Your task to perform on an android device: toggle javascript in the chrome app Image 0: 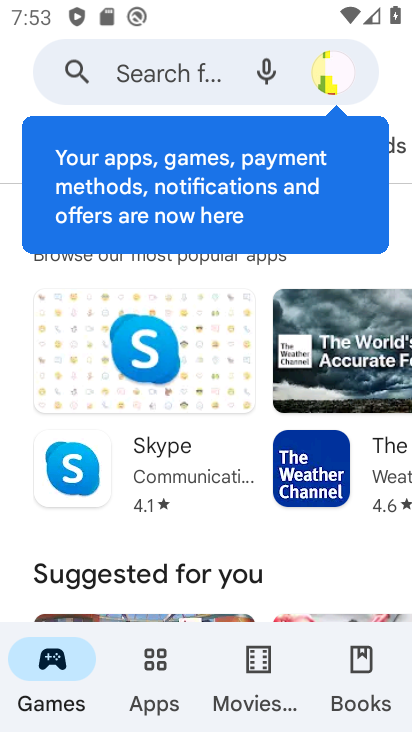
Step 0: press home button
Your task to perform on an android device: toggle javascript in the chrome app Image 1: 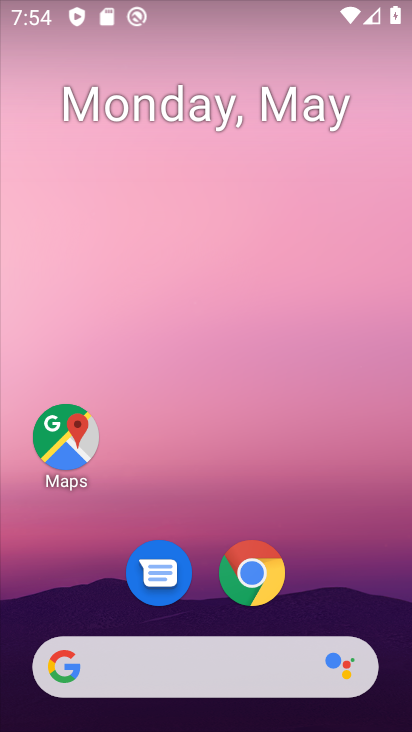
Step 1: drag from (63, 625) to (196, 137)
Your task to perform on an android device: toggle javascript in the chrome app Image 2: 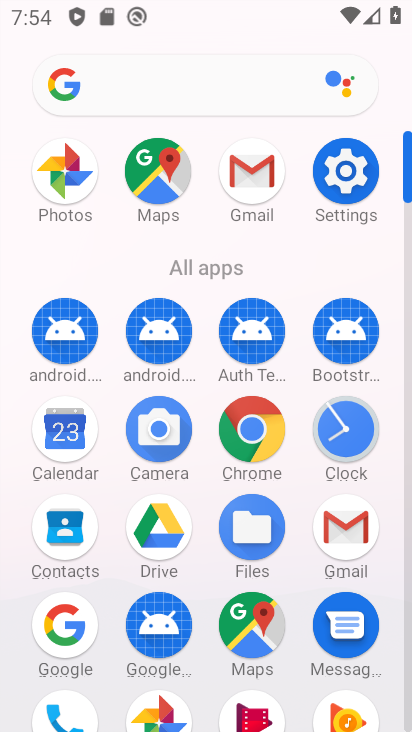
Step 2: drag from (198, 660) to (252, 265)
Your task to perform on an android device: toggle javascript in the chrome app Image 3: 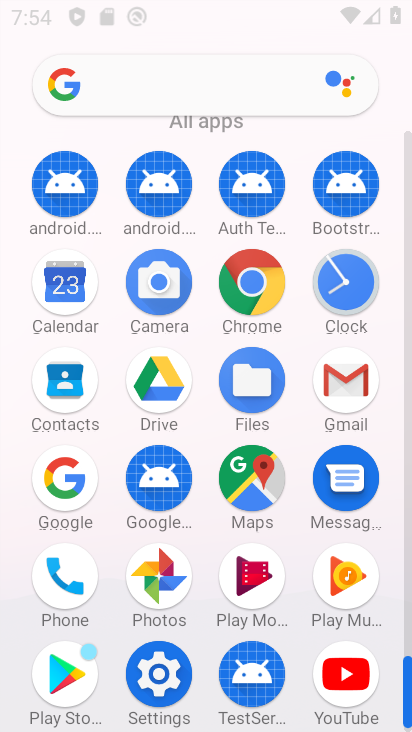
Step 3: click (262, 296)
Your task to perform on an android device: toggle javascript in the chrome app Image 4: 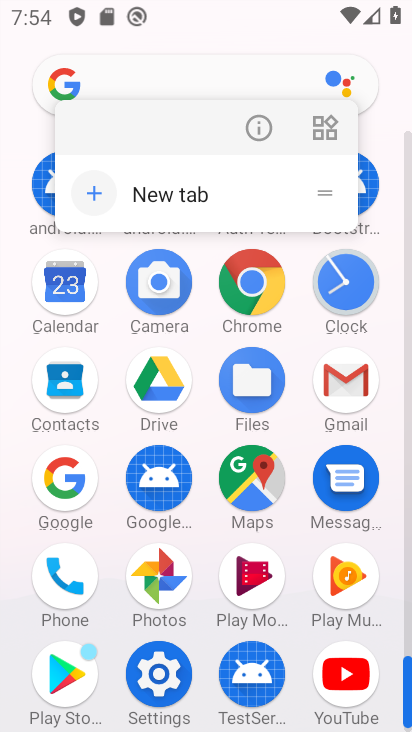
Step 4: click (248, 287)
Your task to perform on an android device: toggle javascript in the chrome app Image 5: 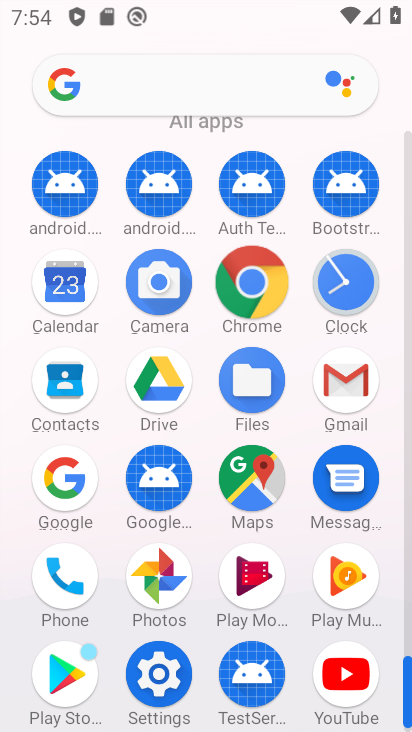
Step 5: click (248, 287)
Your task to perform on an android device: toggle javascript in the chrome app Image 6: 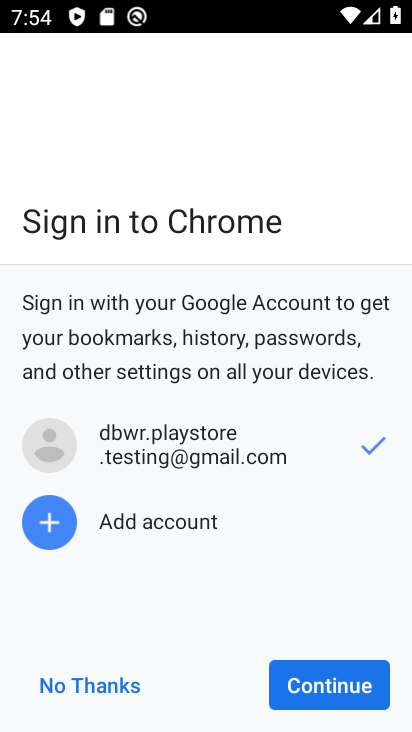
Step 6: click (322, 673)
Your task to perform on an android device: toggle javascript in the chrome app Image 7: 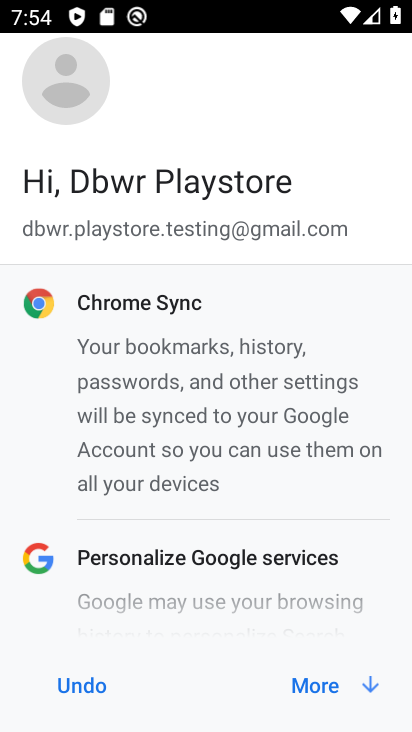
Step 7: click (319, 680)
Your task to perform on an android device: toggle javascript in the chrome app Image 8: 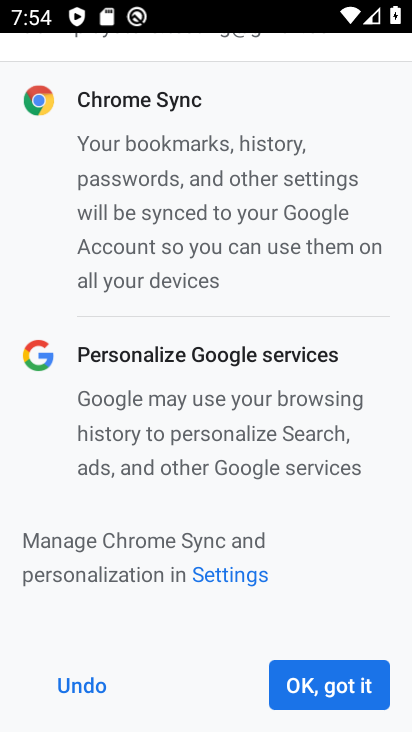
Step 8: click (322, 681)
Your task to perform on an android device: toggle javascript in the chrome app Image 9: 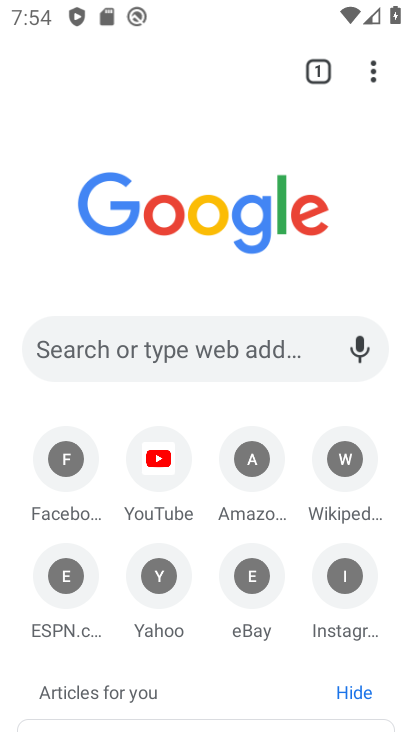
Step 9: drag from (381, 73) to (243, 606)
Your task to perform on an android device: toggle javascript in the chrome app Image 10: 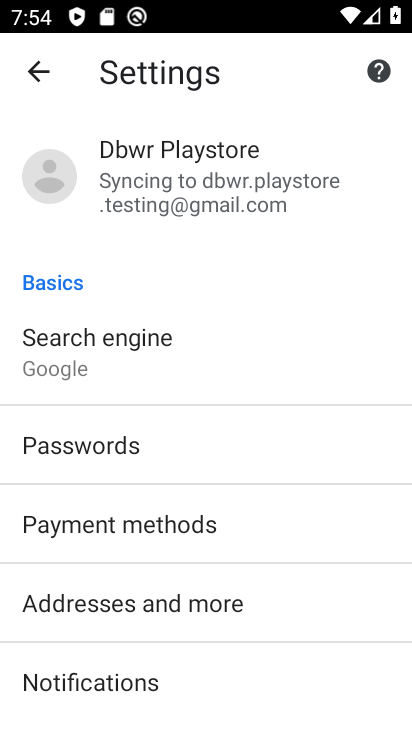
Step 10: drag from (260, 663) to (314, 315)
Your task to perform on an android device: toggle javascript in the chrome app Image 11: 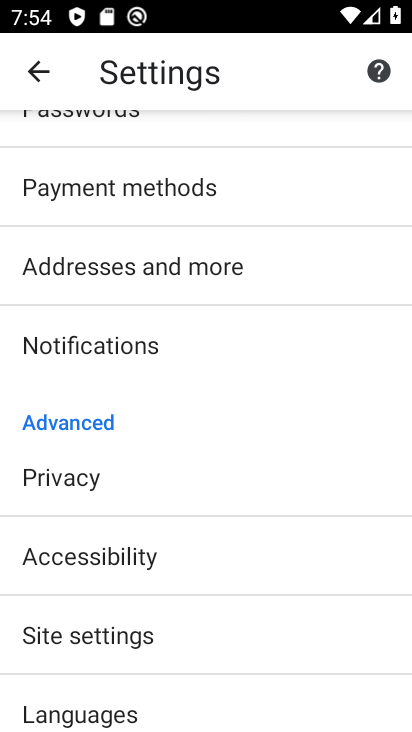
Step 11: drag from (225, 682) to (288, 372)
Your task to perform on an android device: toggle javascript in the chrome app Image 12: 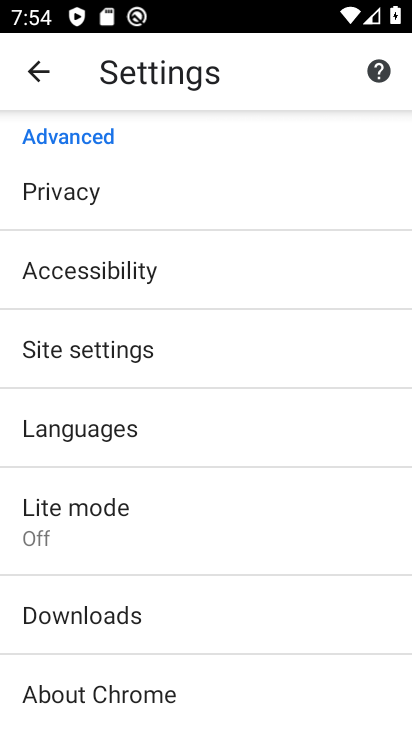
Step 12: drag from (145, 655) to (205, 344)
Your task to perform on an android device: toggle javascript in the chrome app Image 13: 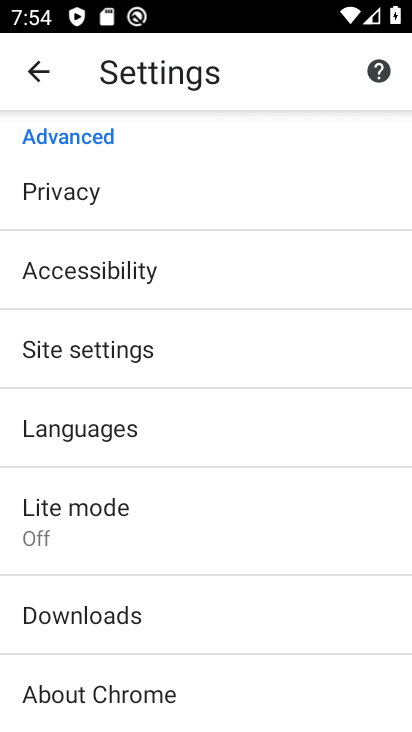
Step 13: click (120, 353)
Your task to perform on an android device: toggle javascript in the chrome app Image 14: 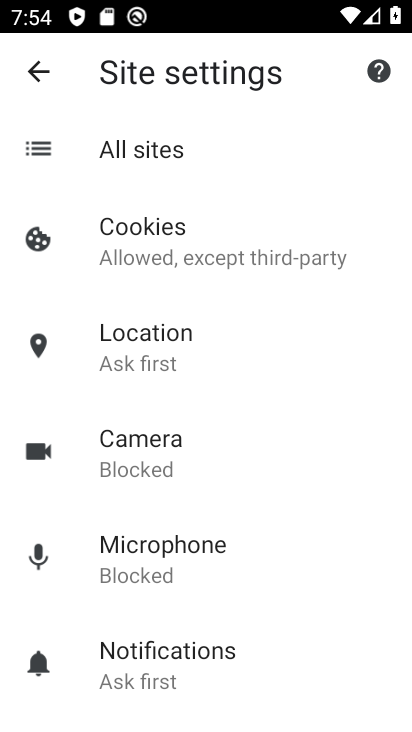
Step 14: drag from (144, 680) to (280, 242)
Your task to perform on an android device: toggle javascript in the chrome app Image 15: 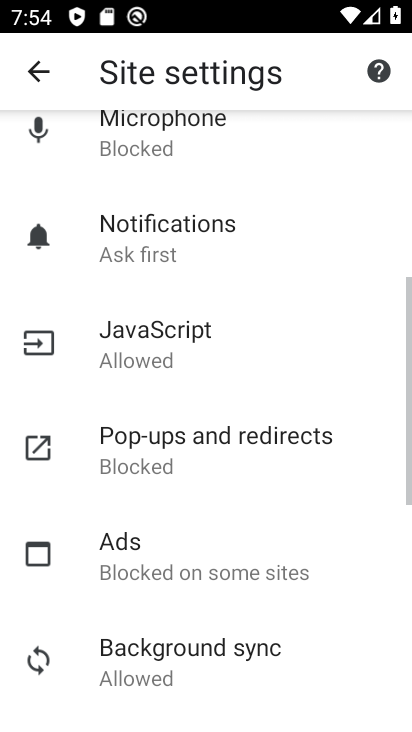
Step 15: click (226, 328)
Your task to perform on an android device: toggle javascript in the chrome app Image 16: 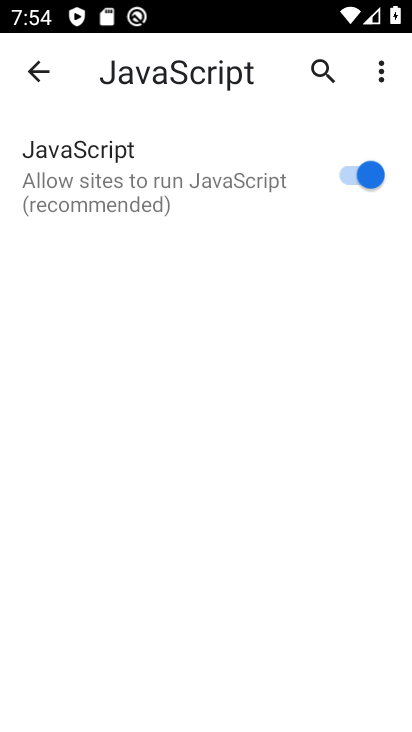
Step 16: click (348, 174)
Your task to perform on an android device: toggle javascript in the chrome app Image 17: 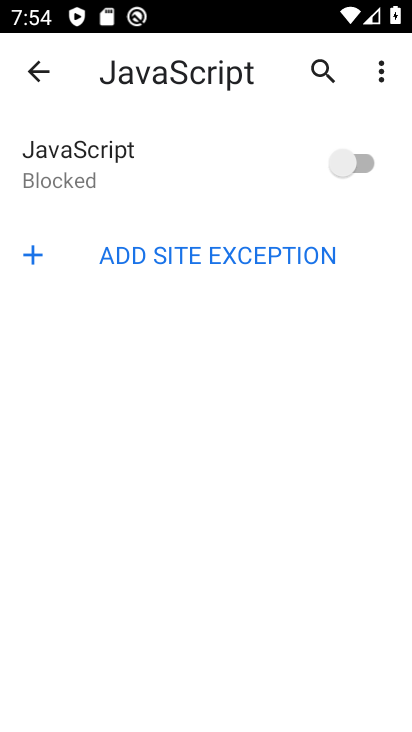
Step 17: task complete